Your task to perform on an android device: turn on sleep mode Image 0: 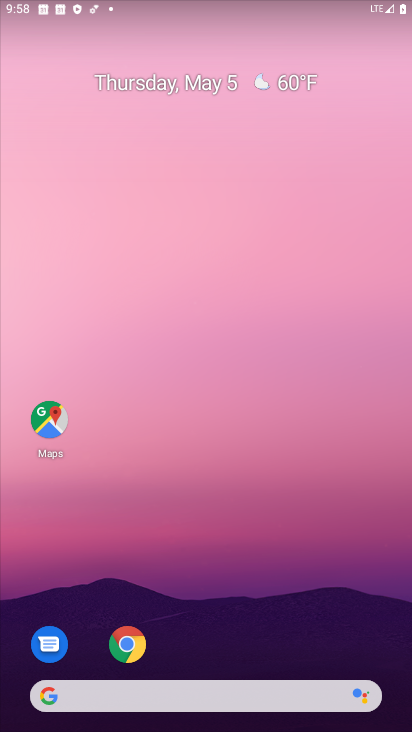
Step 0: drag from (199, 657) to (219, 159)
Your task to perform on an android device: turn on sleep mode Image 1: 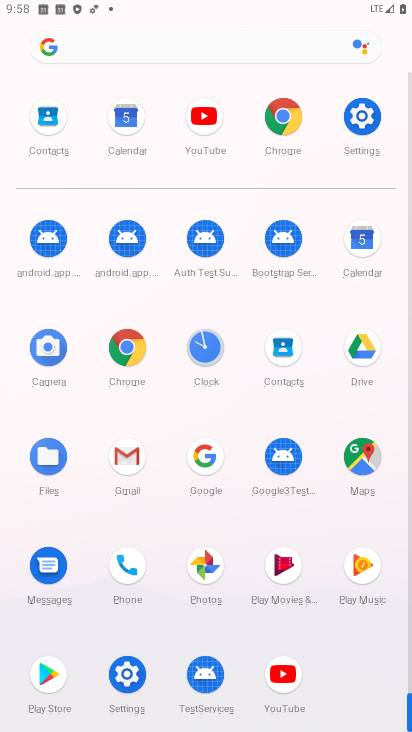
Step 1: click (345, 120)
Your task to perform on an android device: turn on sleep mode Image 2: 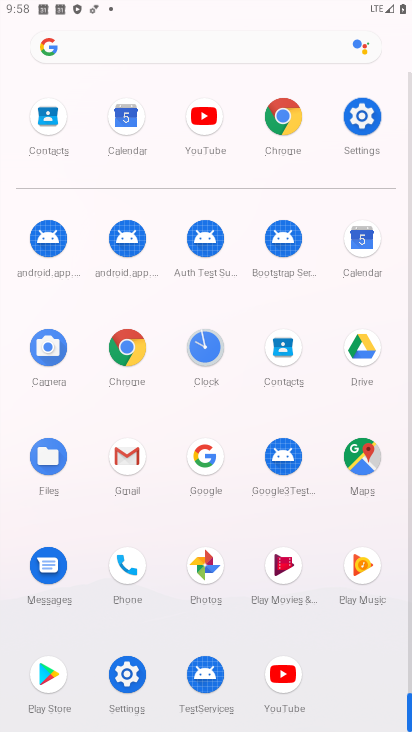
Step 2: click (345, 120)
Your task to perform on an android device: turn on sleep mode Image 3: 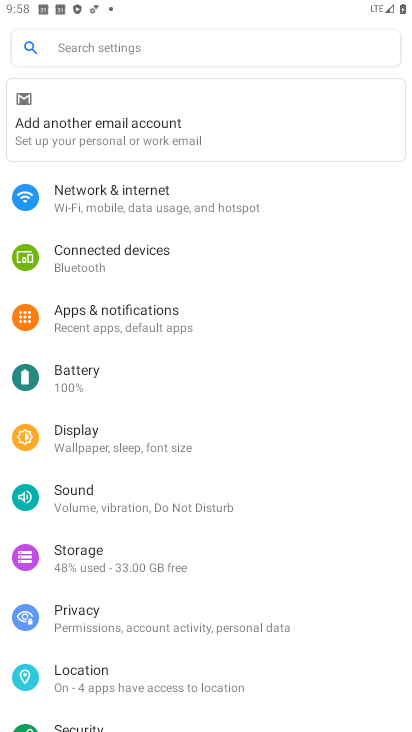
Step 3: click (179, 444)
Your task to perform on an android device: turn on sleep mode Image 4: 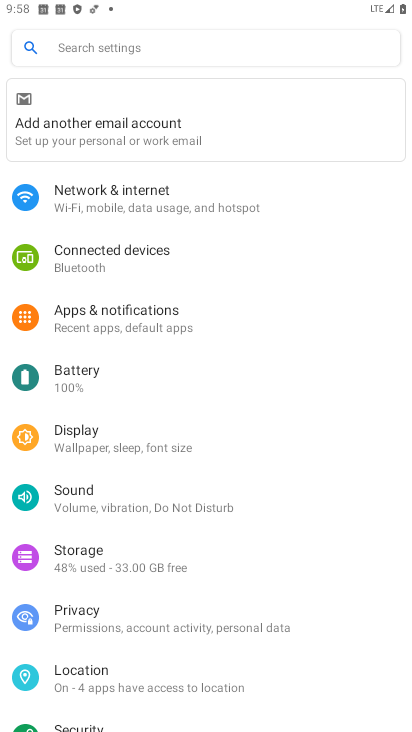
Step 4: click (179, 444)
Your task to perform on an android device: turn on sleep mode Image 5: 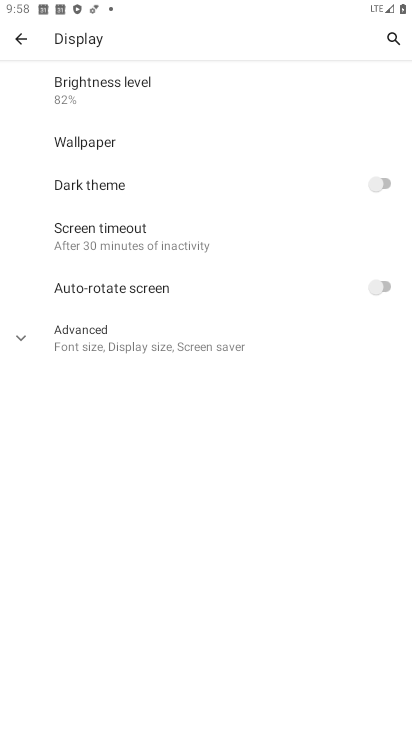
Step 5: click (162, 238)
Your task to perform on an android device: turn on sleep mode Image 6: 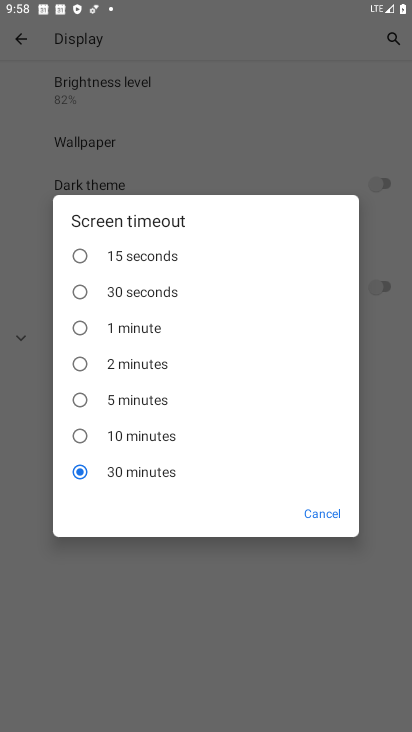
Step 6: task complete